Your task to perform on an android device: Open eBay Image 0: 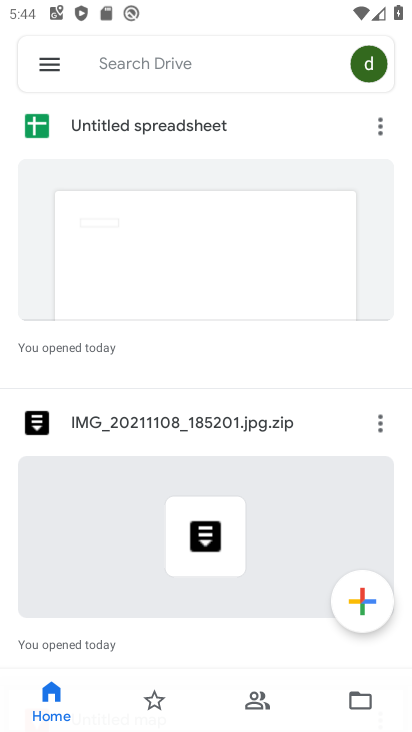
Step 0: press home button
Your task to perform on an android device: Open eBay Image 1: 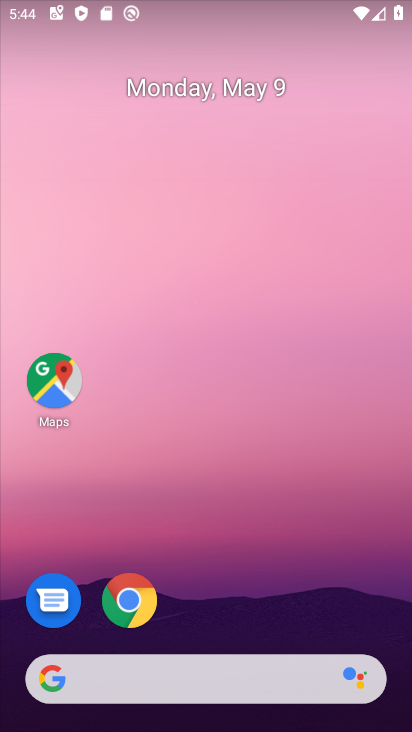
Step 1: drag from (222, 630) to (313, 8)
Your task to perform on an android device: Open eBay Image 2: 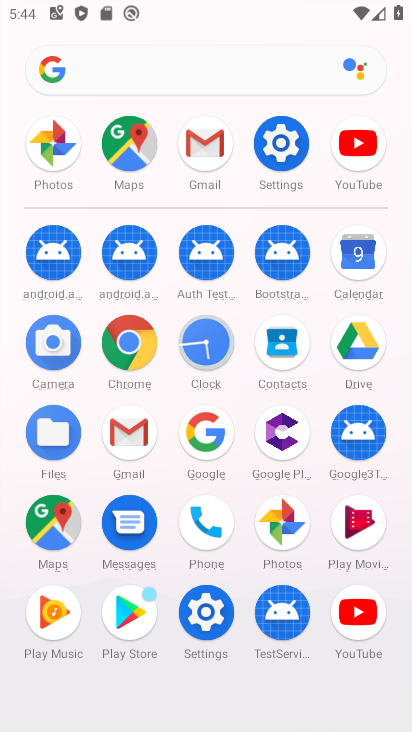
Step 2: click (126, 338)
Your task to perform on an android device: Open eBay Image 3: 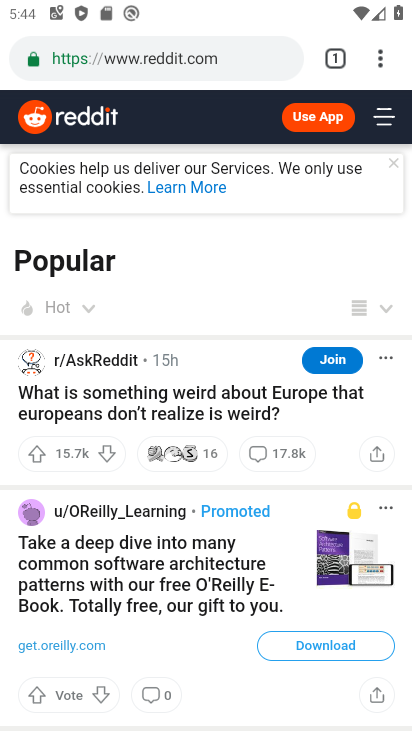
Step 3: click (212, 54)
Your task to perform on an android device: Open eBay Image 4: 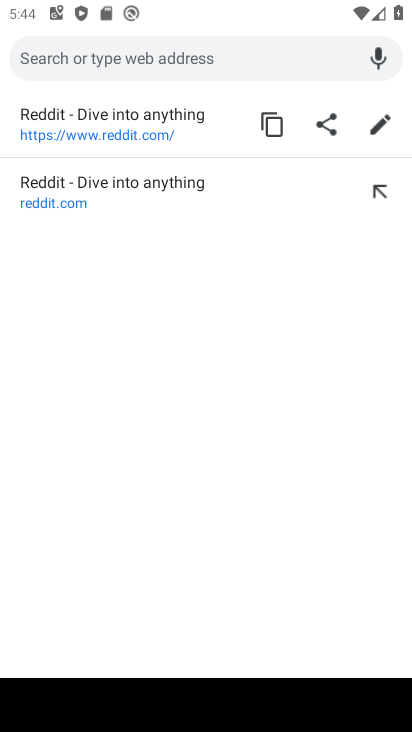
Step 4: type "eBay"
Your task to perform on an android device: Open eBay Image 5: 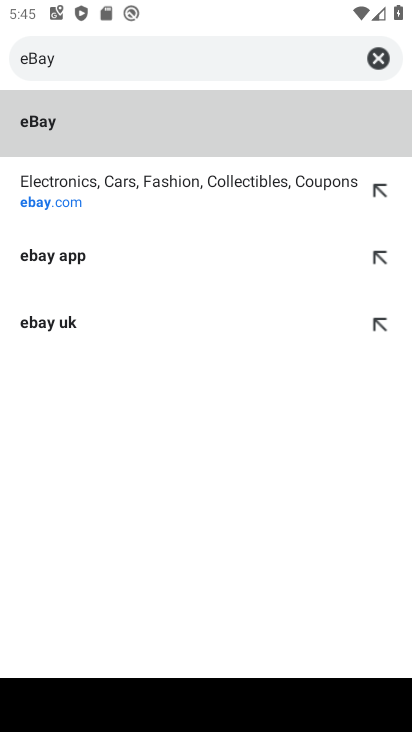
Step 5: click (145, 149)
Your task to perform on an android device: Open eBay Image 6: 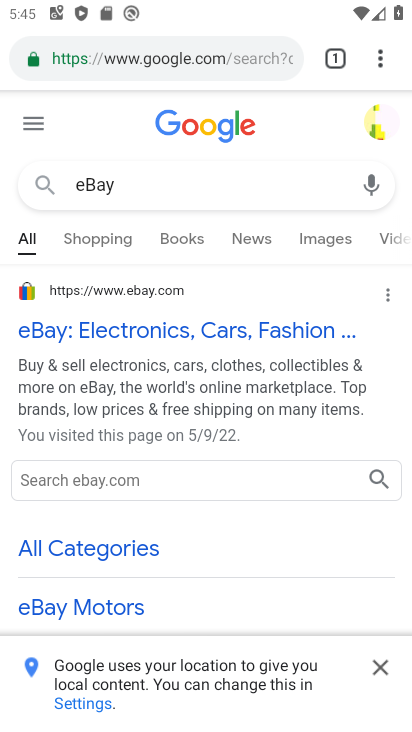
Step 6: task complete